Your task to perform on an android device: Open wifi settings Image 0: 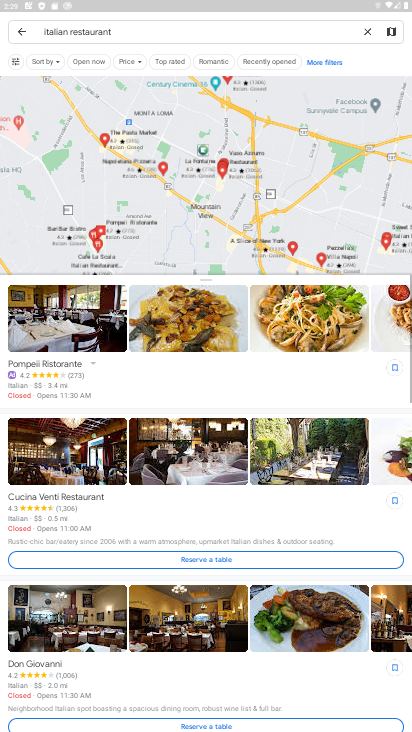
Step 0: press home button
Your task to perform on an android device: Open wifi settings Image 1: 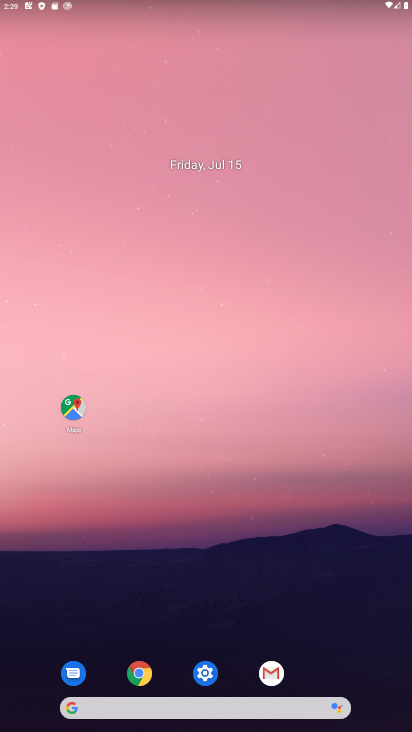
Step 1: click (201, 673)
Your task to perform on an android device: Open wifi settings Image 2: 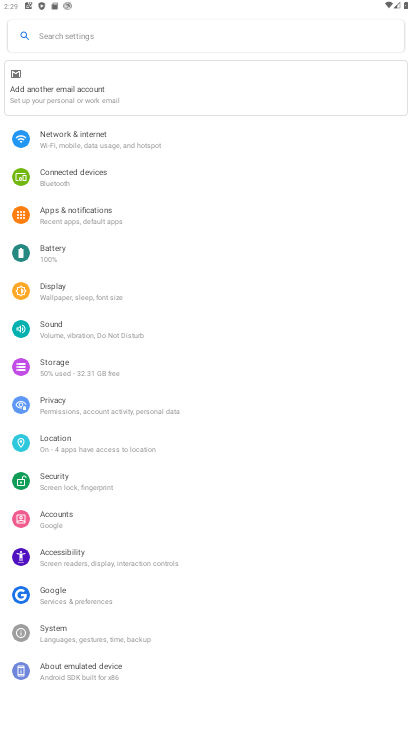
Step 2: click (87, 133)
Your task to perform on an android device: Open wifi settings Image 3: 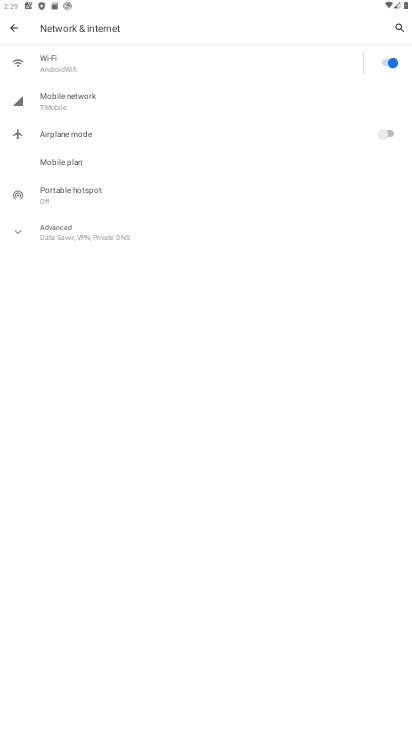
Step 3: click (102, 71)
Your task to perform on an android device: Open wifi settings Image 4: 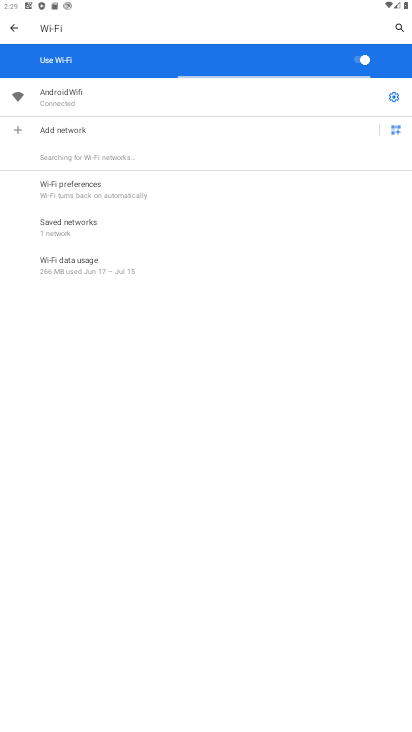
Step 4: click (359, 60)
Your task to perform on an android device: Open wifi settings Image 5: 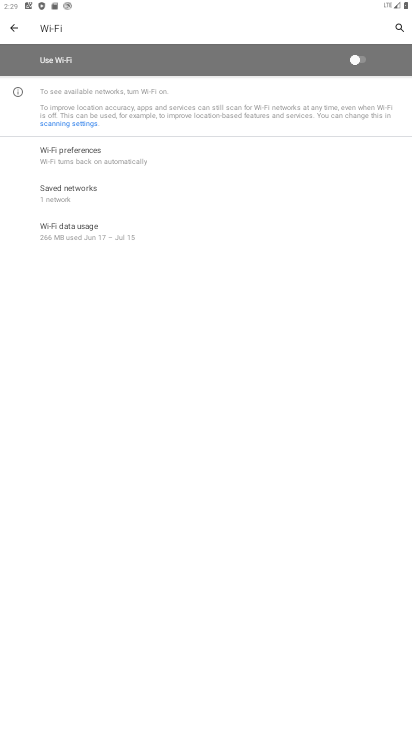
Step 5: click (359, 60)
Your task to perform on an android device: Open wifi settings Image 6: 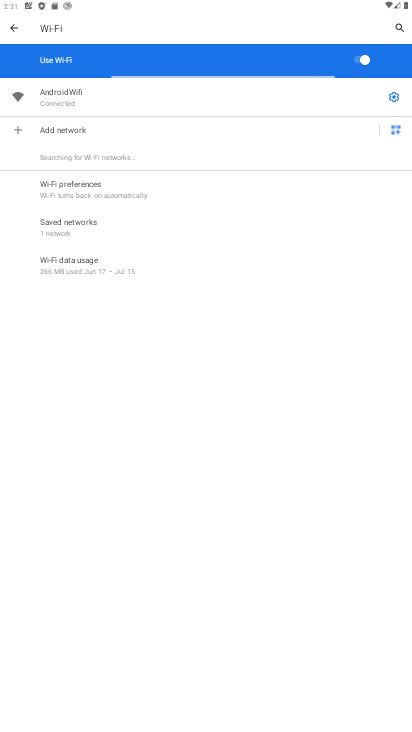
Step 6: task complete